Your task to perform on an android device: Go to settings Image 0: 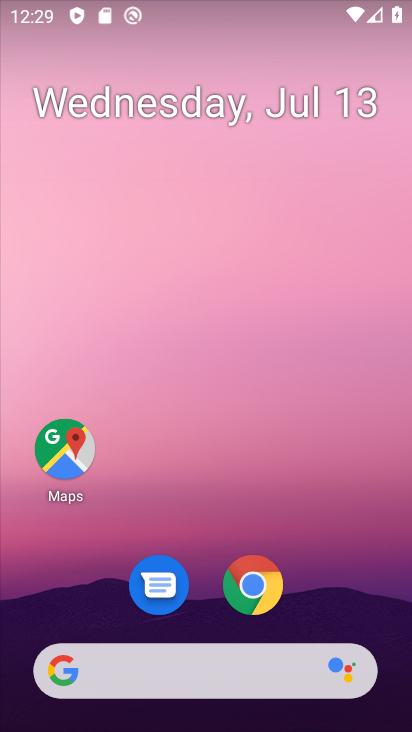
Step 0: drag from (327, 579) to (304, 11)
Your task to perform on an android device: Go to settings Image 1: 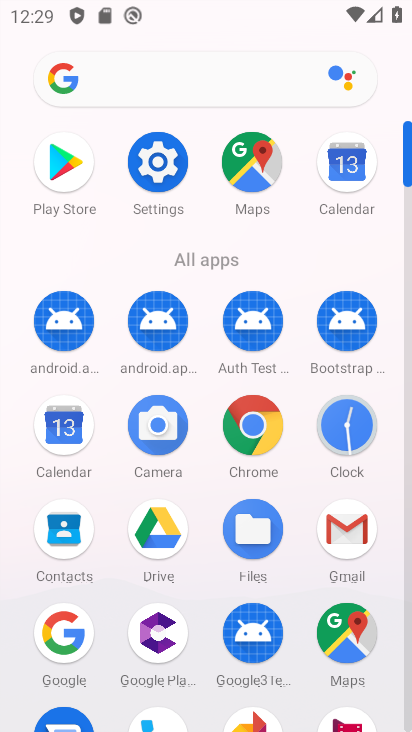
Step 1: click (160, 168)
Your task to perform on an android device: Go to settings Image 2: 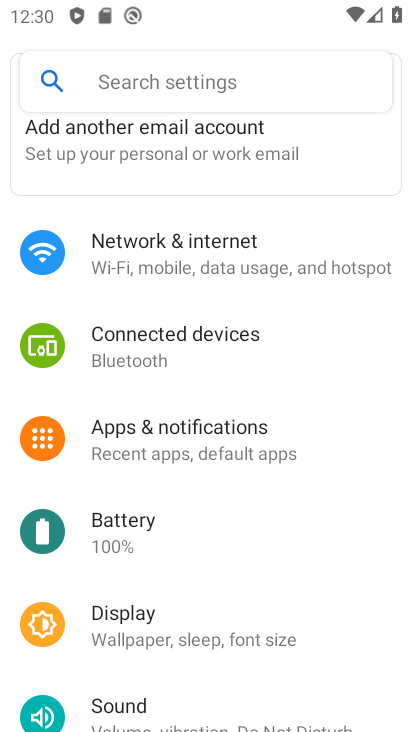
Step 2: task complete